Your task to perform on an android device: Open ESPN.com Image 0: 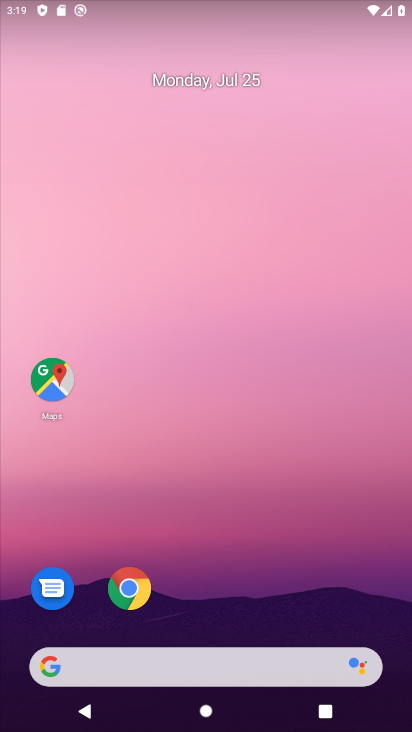
Step 0: click (128, 594)
Your task to perform on an android device: Open ESPN.com Image 1: 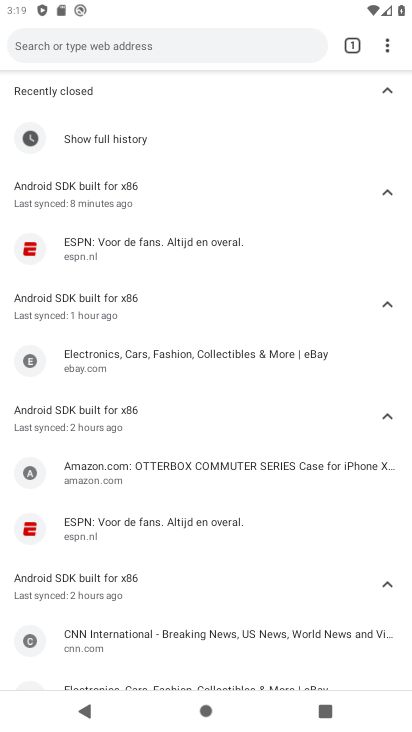
Step 1: click (189, 43)
Your task to perform on an android device: Open ESPN.com Image 2: 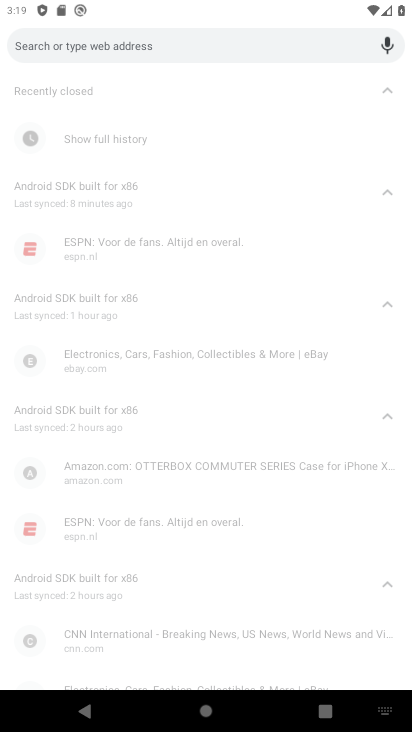
Step 2: type "espn.com"
Your task to perform on an android device: Open ESPN.com Image 3: 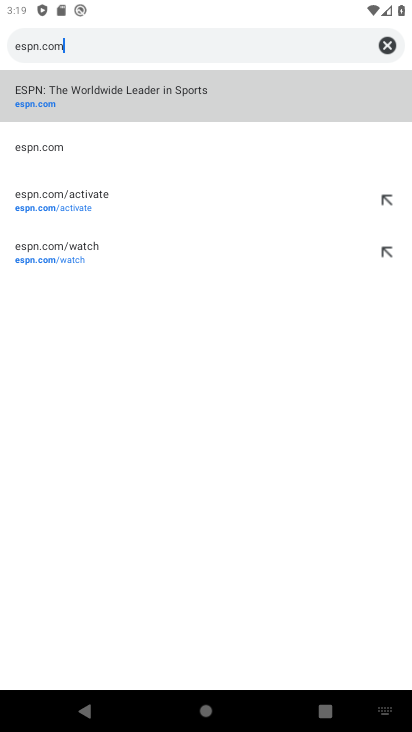
Step 3: click (42, 87)
Your task to perform on an android device: Open ESPN.com Image 4: 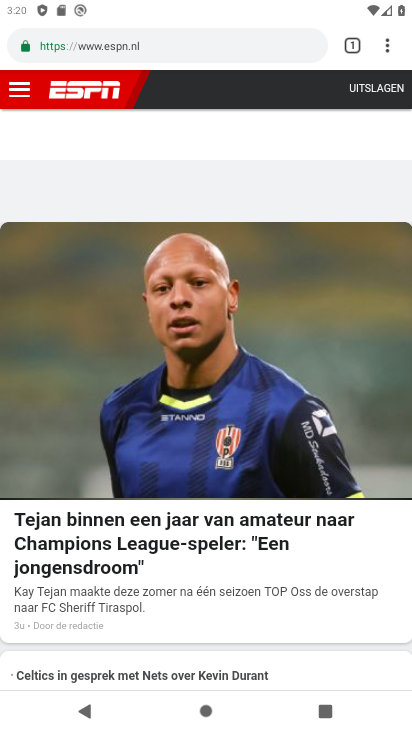
Step 4: task complete